Your task to perform on an android device: turn on location history Image 0: 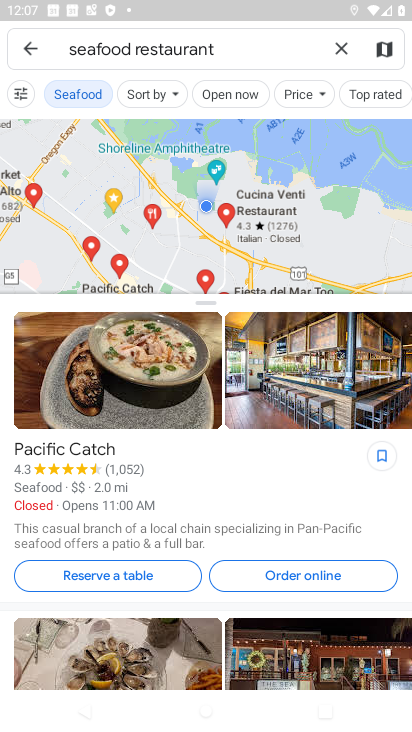
Step 0: click (28, 46)
Your task to perform on an android device: turn on location history Image 1: 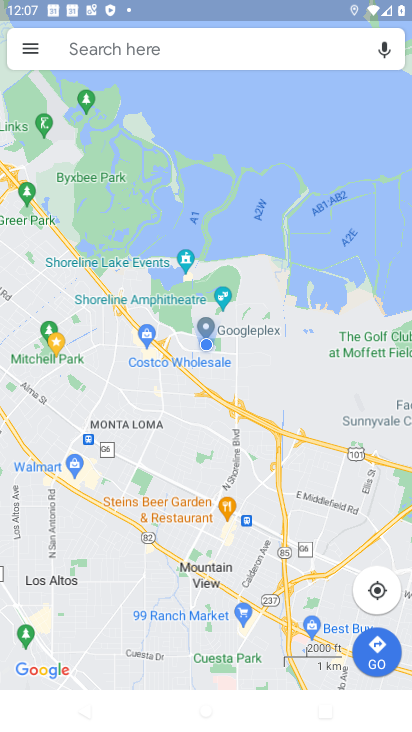
Step 1: click (28, 46)
Your task to perform on an android device: turn on location history Image 2: 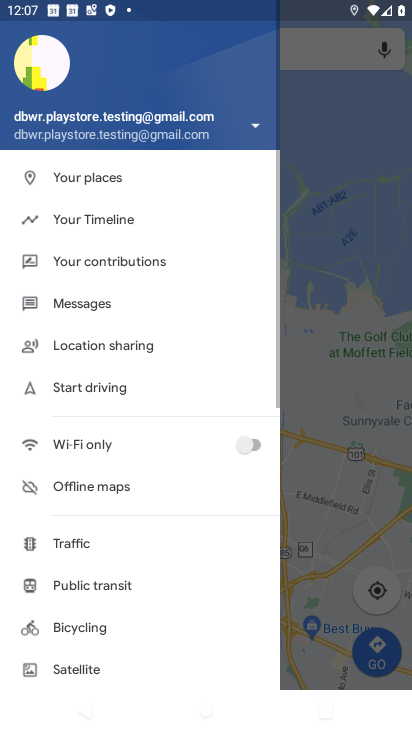
Step 2: click (106, 216)
Your task to perform on an android device: turn on location history Image 3: 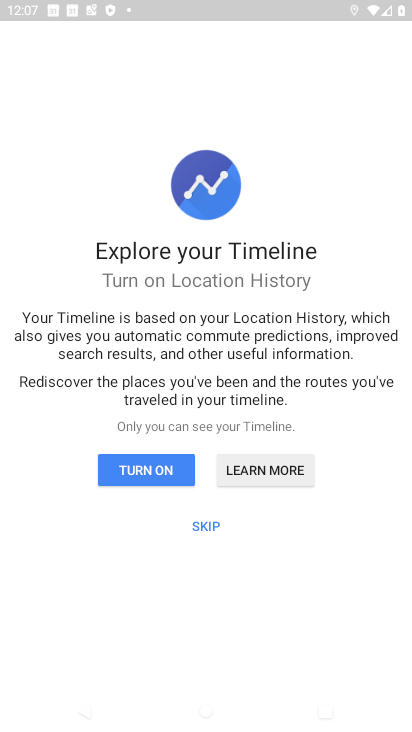
Step 3: click (213, 526)
Your task to perform on an android device: turn on location history Image 4: 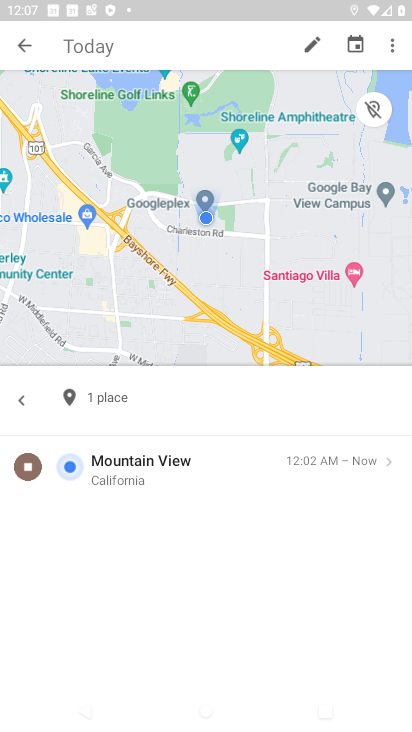
Step 4: click (395, 49)
Your task to perform on an android device: turn on location history Image 5: 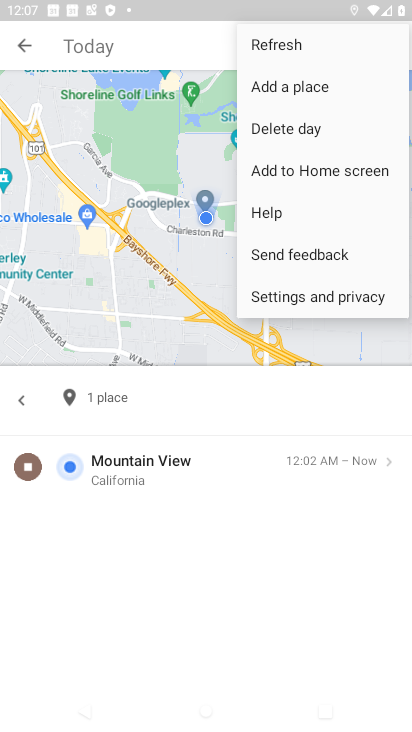
Step 5: click (333, 300)
Your task to perform on an android device: turn on location history Image 6: 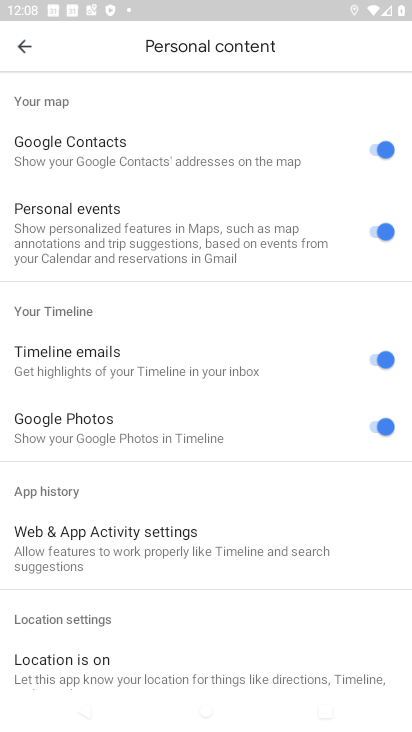
Step 6: drag from (157, 571) to (233, 57)
Your task to perform on an android device: turn on location history Image 7: 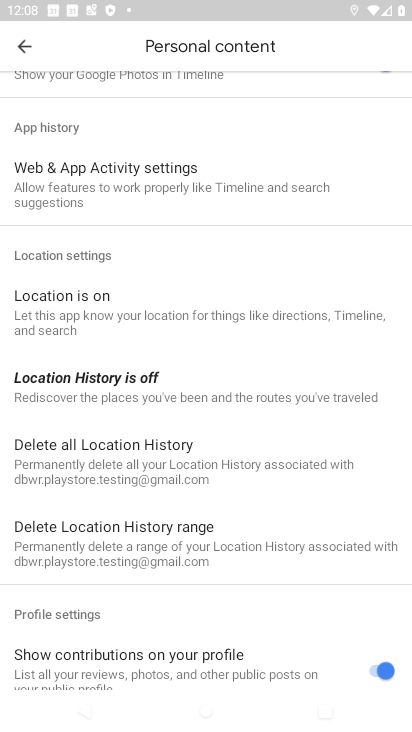
Step 7: click (149, 382)
Your task to perform on an android device: turn on location history Image 8: 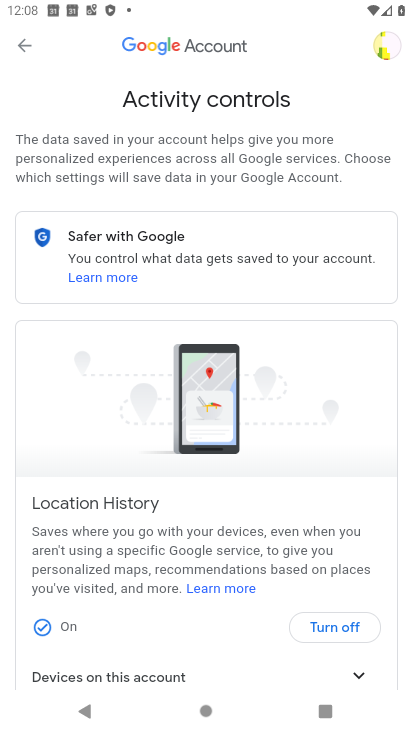
Step 8: click (265, 595)
Your task to perform on an android device: turn on location history Image 9: 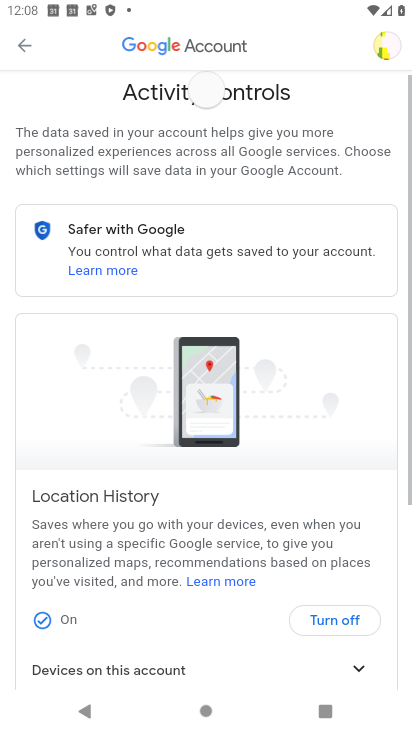
Step 9: task complete